Your task to perform on an android device: Add "alienware area 51" to the cart on target.com, then select checkout. Image 0: 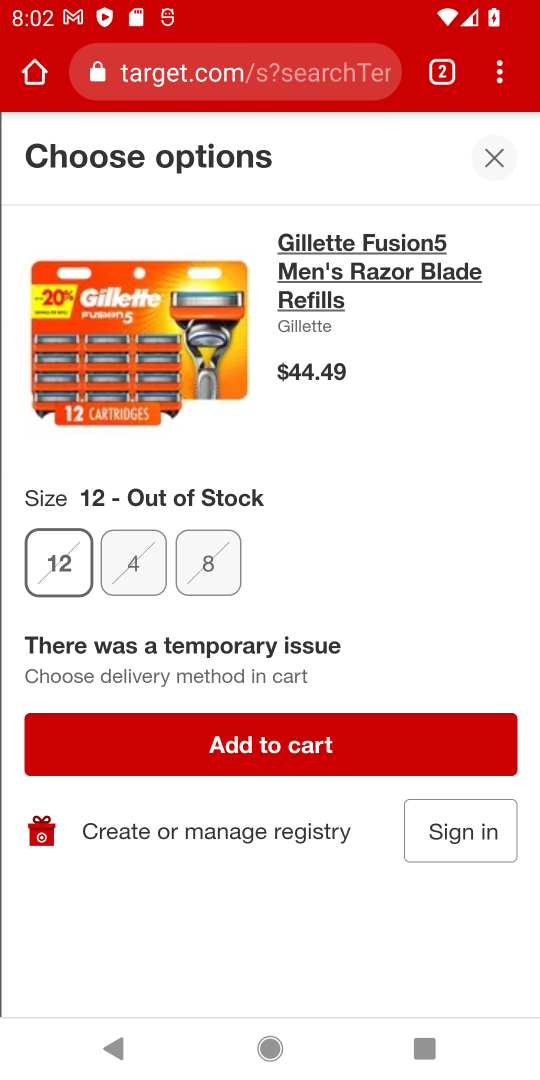
Step 0: press home button
Your task to perform on an android device: Add "alienware area 51" to the cart on target.com, then select checkout. Image 1: 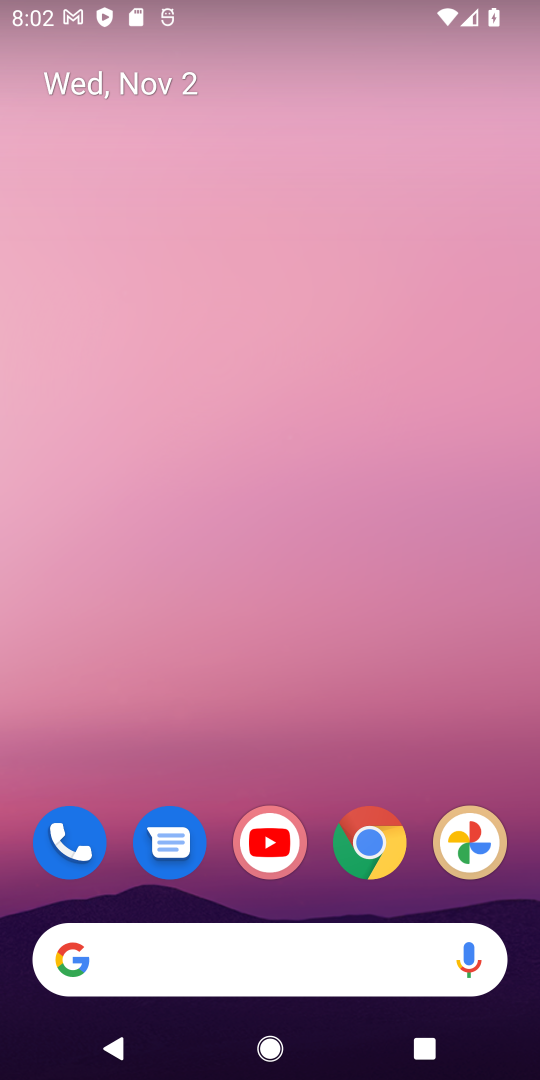
Step 1: drag from (349, 926) to (267, 236)
Your task to perform on an android device: Add "alienware area 51" to the cart on target.com, then select checkout. Image 2: 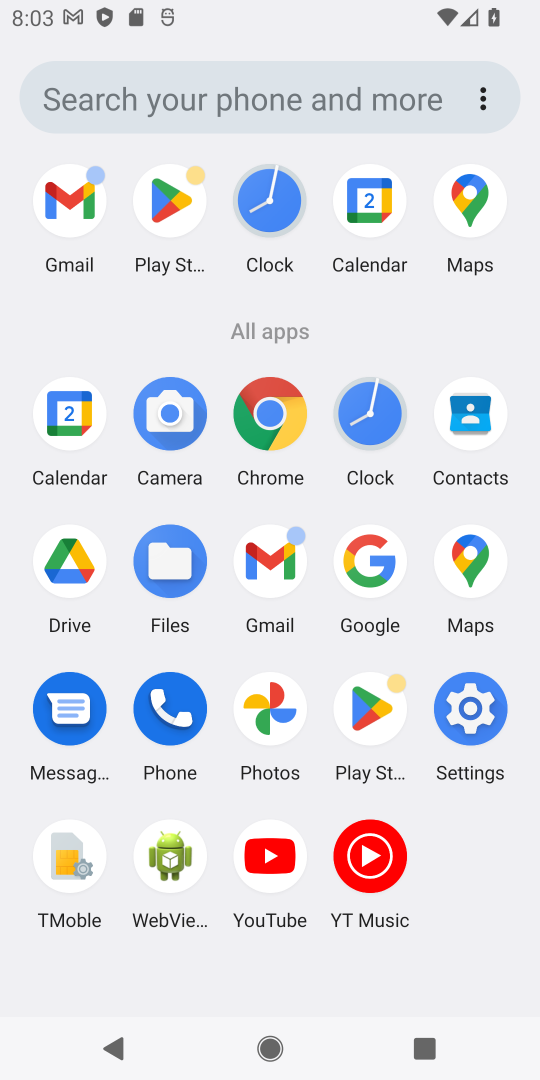
Step 2: click (350, 557)
Your task to perform on an android device: Add "alienware area 51" to the cart on target.com, then select checkout. Image 3: 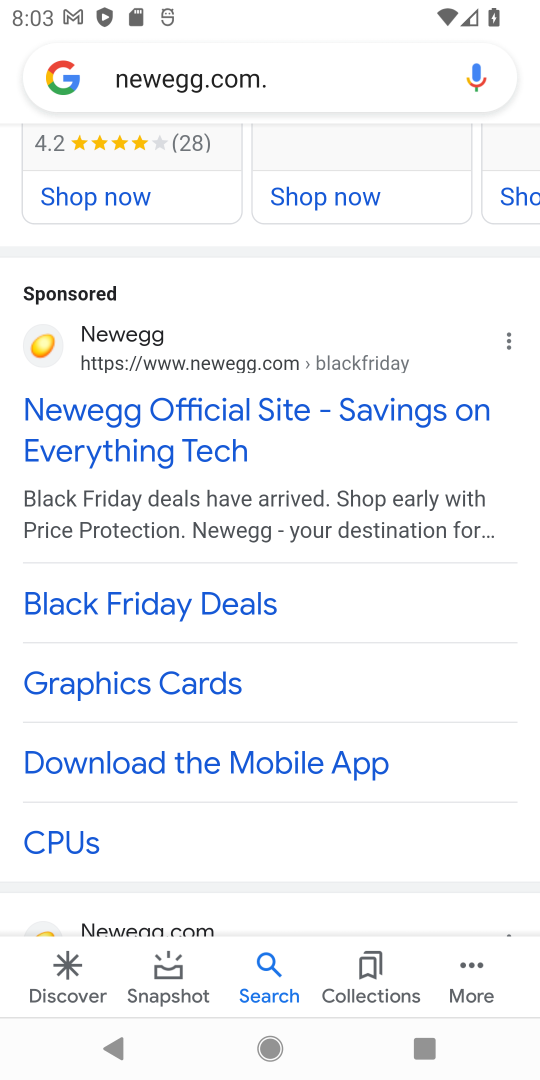
Step 3: click (181, 76)
Your task to perform on an android device: Add "alienware area 51" to the cart on target.com, then select checkout. Image 4: 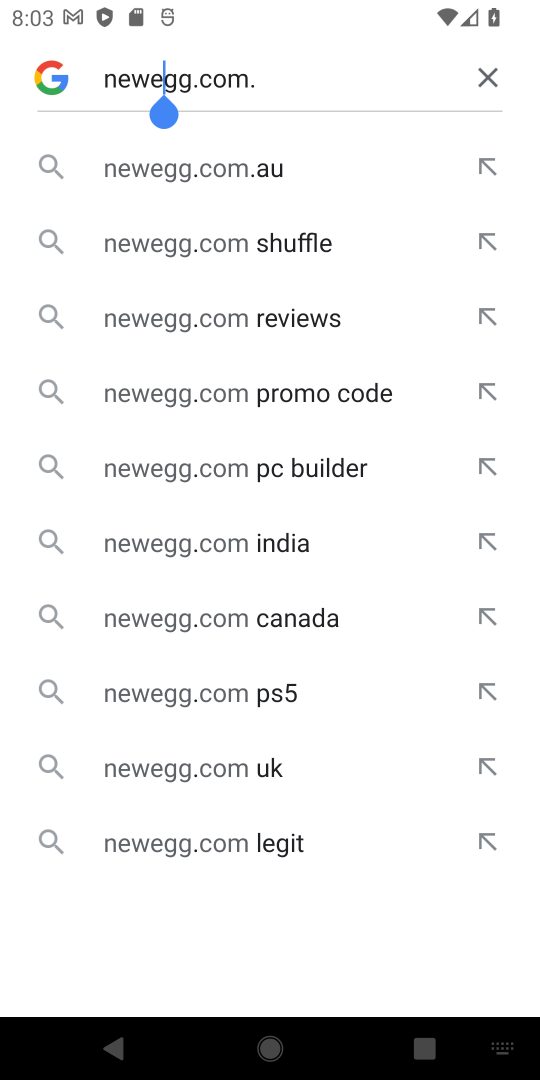
Step 4: click (469, 74)
Your task to perform on an android device: Add "alienware area 51" to the cart on target.com, then select checkout. Image 5: 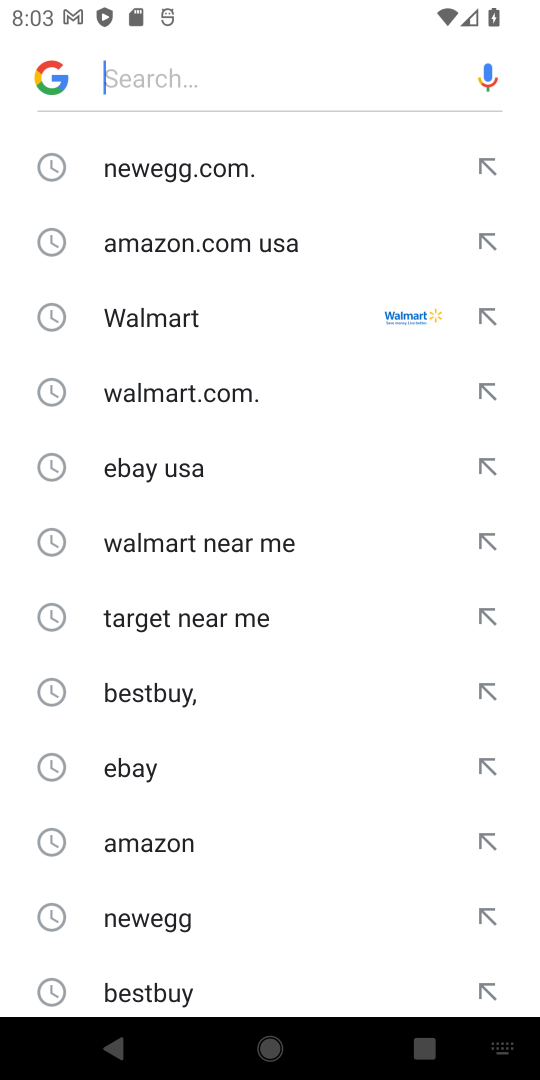
Step 5: click (182, 605)
Your task to perform on an android device: Add "alienware area 51" to the cart on target.com, then select checkout. Image 6: 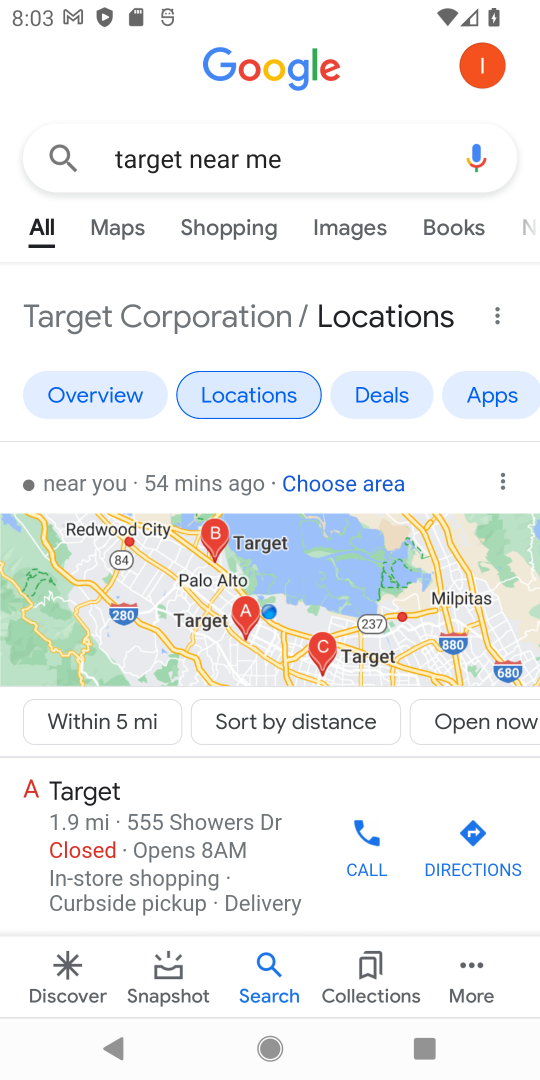
Step 6: drag from (227, 779) to (369, 221)
Your task to perform on an android device: Add "alienware area 51" to the cart on target.com, then select checkout. Image 7: 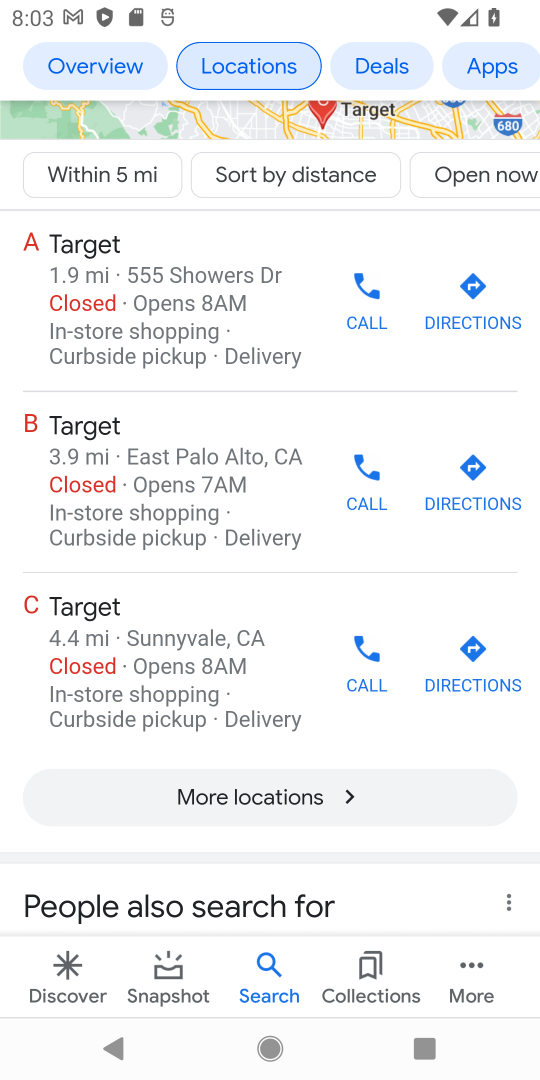
Step 7: drag from (173, 863) to (349, 74)
Your task to perform on an android device: Add "alienware area 51" to the cart on target.com, then select checkout. Image 8: 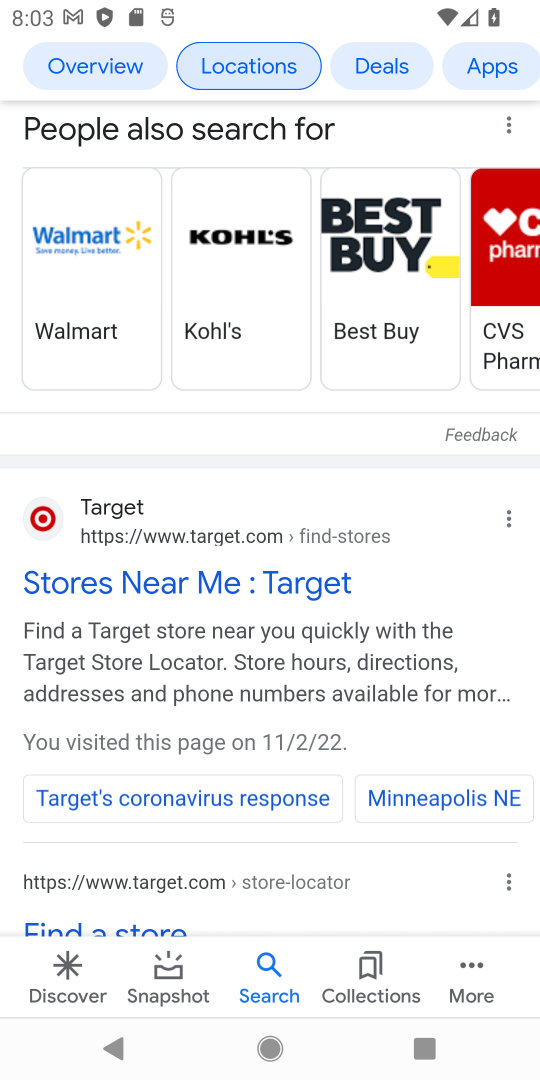
Step 8: click (41, 526)
Your task to perform on an android device: Add "alienware area 51" to the cart on target.com, then select checkout. Image 9: 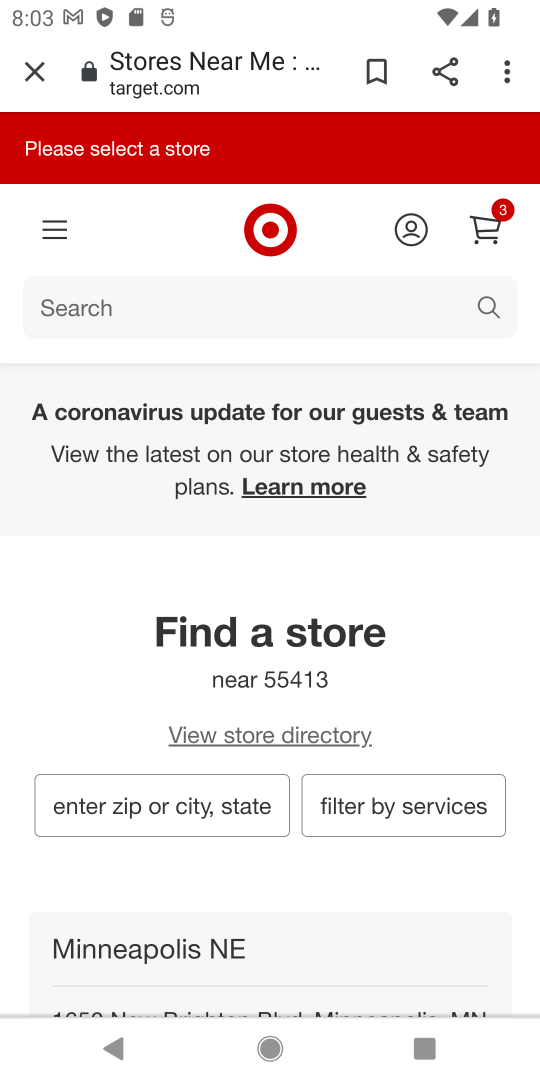
Step 9: click (165, 305)
Your task to perform on an android device: Add "alienware area 51" to the cart on target.com, then select checkout. Image 10: 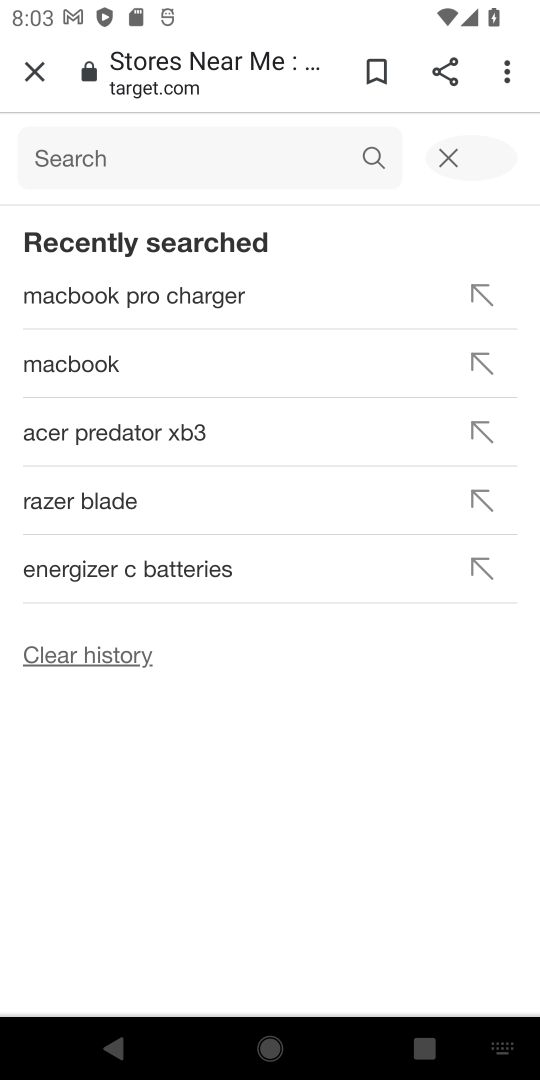
Step 10: click (199, 146)
Your task to perform on an android device: Add "alienware area 51" to the cart on target.com, then select checkout. Image 11: 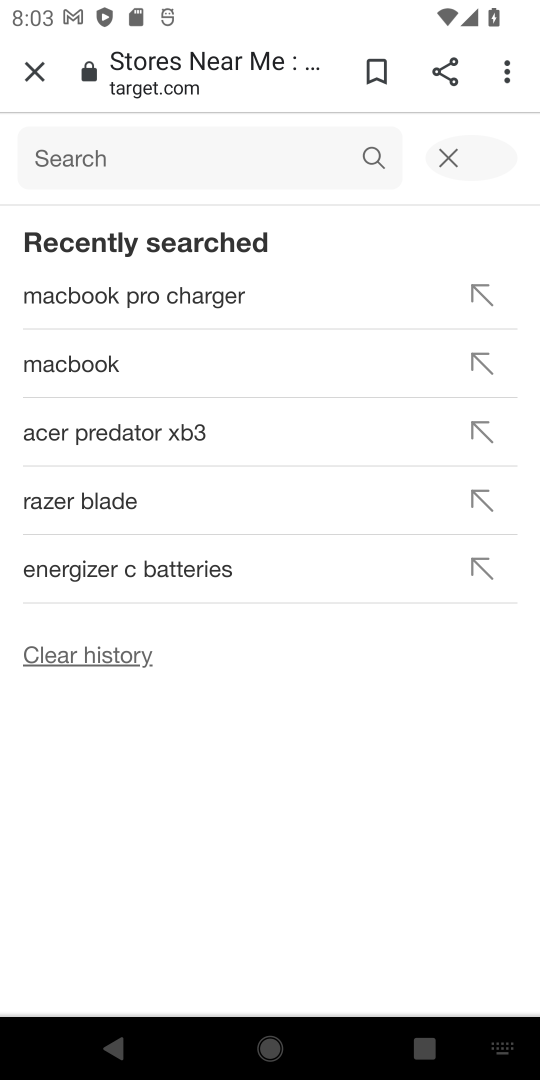
Step 11: type ""alienware area 51 "
Your task to perform on an android device: Add "alienware area 51" to the cart on target.com, then select checkout. Image 12: 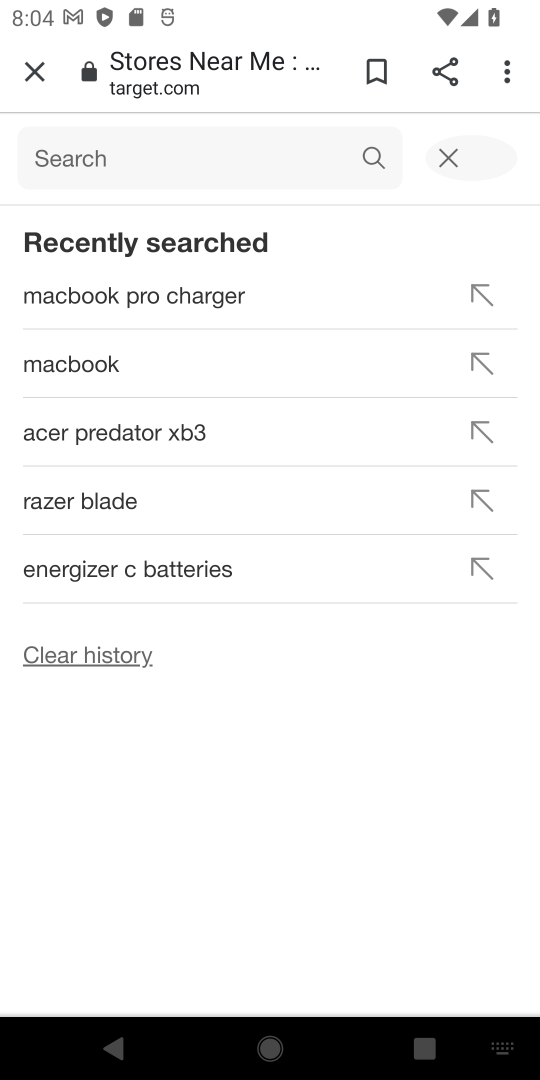
Step 12: click (167, 157)
Your task to perform on an android device: Add "alienware area 51" to the cart on target.com, then select checkout. Image 13: 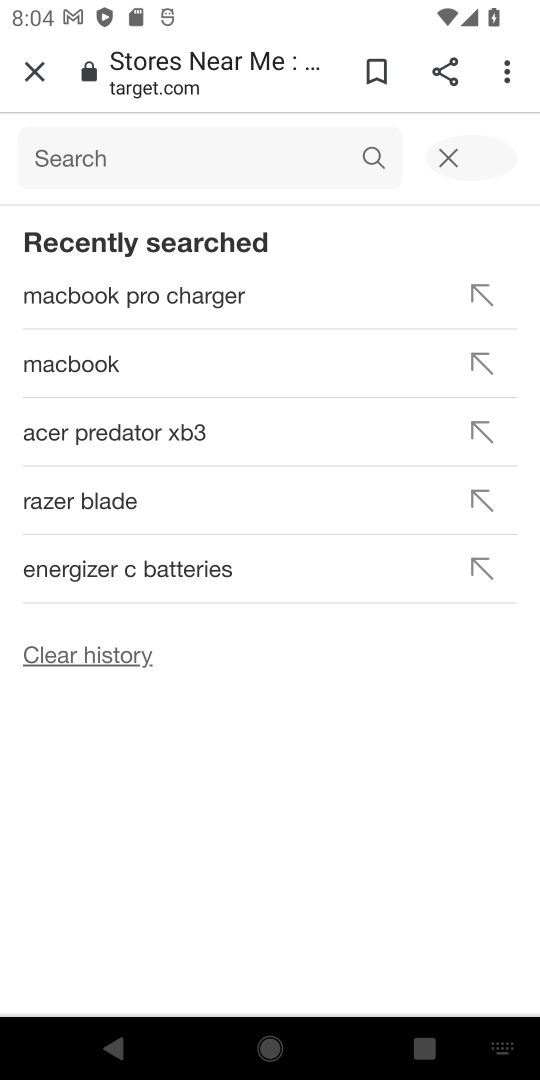
Step 13: type ""alienware area 51 "
Your task to perform on an android device: Add "alienware area 51" to the cart on target.com, then select checkout. Image 14: 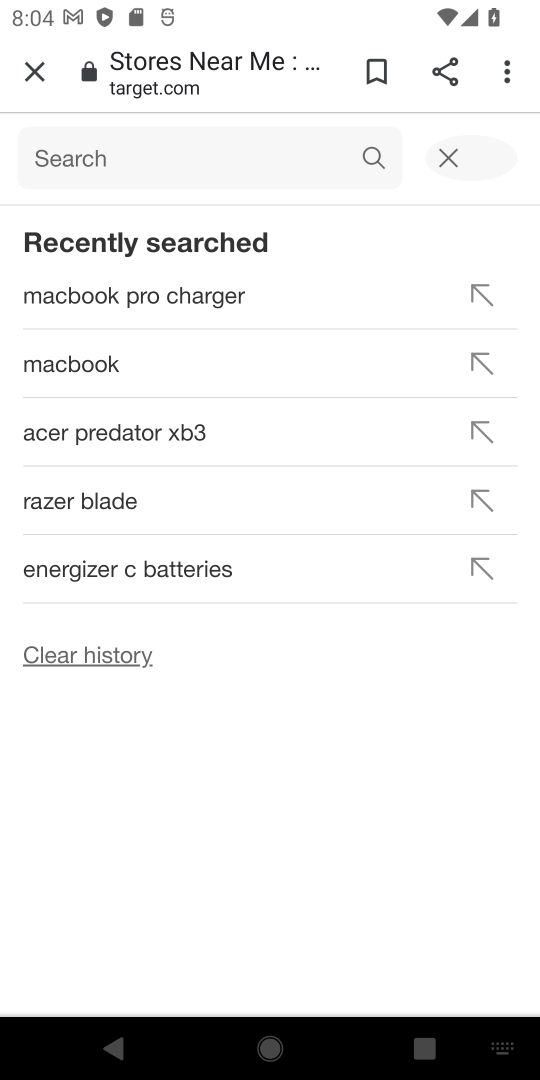
Step 14: click (248, 144)
Your task to perform on an android device: Add "alienware area 51" to the cart on target.com, then select checkout. Image 15: 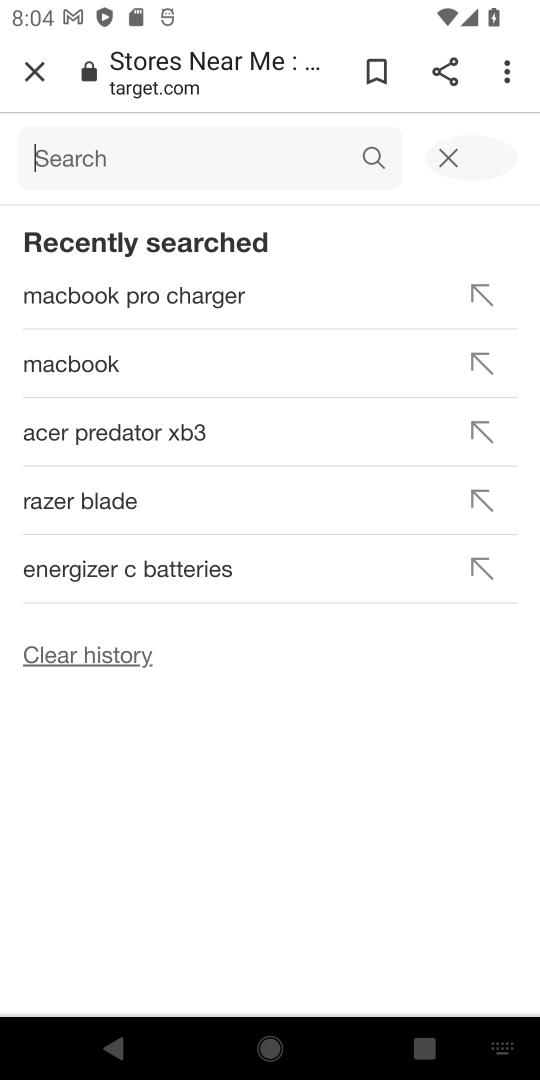
Step 15: type "alienware "
Your task to perform on an android device: Add "alienware area 51" to the cart on target.com, then select checkout. Image 16: 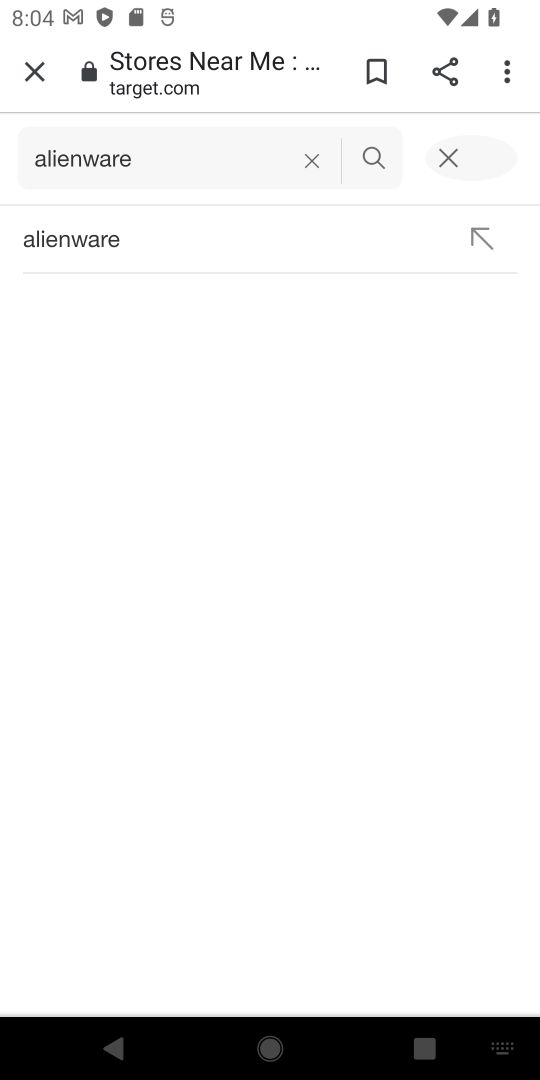
Step 16: click (58, 228)
Your task to perform on an android device: Add "alienware area 51" to the cart on target.com, then select checkout. Image 17: 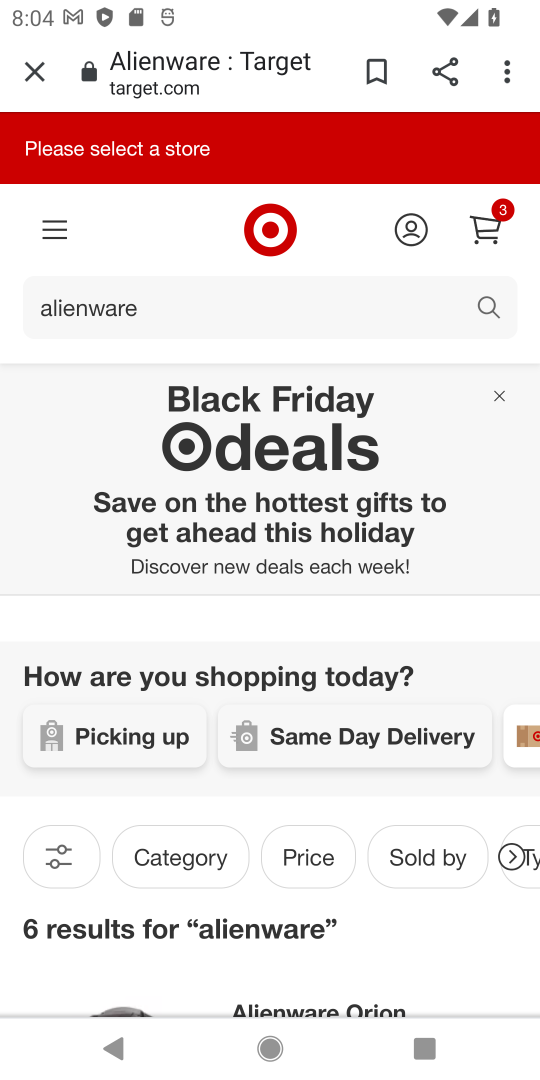
Step 17: drag from (328, 850) to (350, 288)
Your task to perform on an android device: Add "alienware area 51" to the cart on target.com, then select checkout. Image 18: 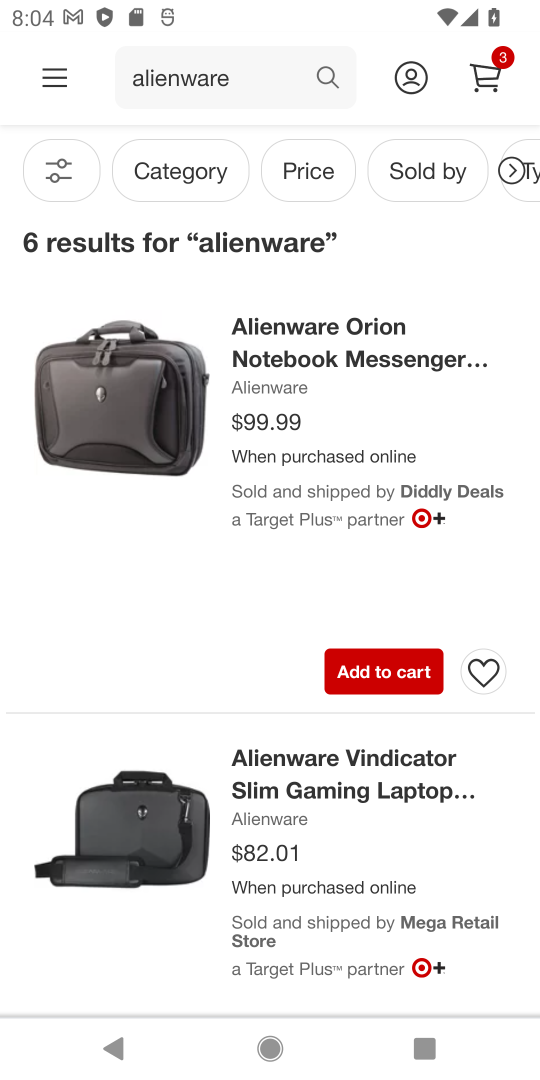
Step 18: drag from (260, 816) to (229, 582)
Your task to perform on an android device: Add "alienware area 51" to the cart on target.com, then select checkout. Image 19: 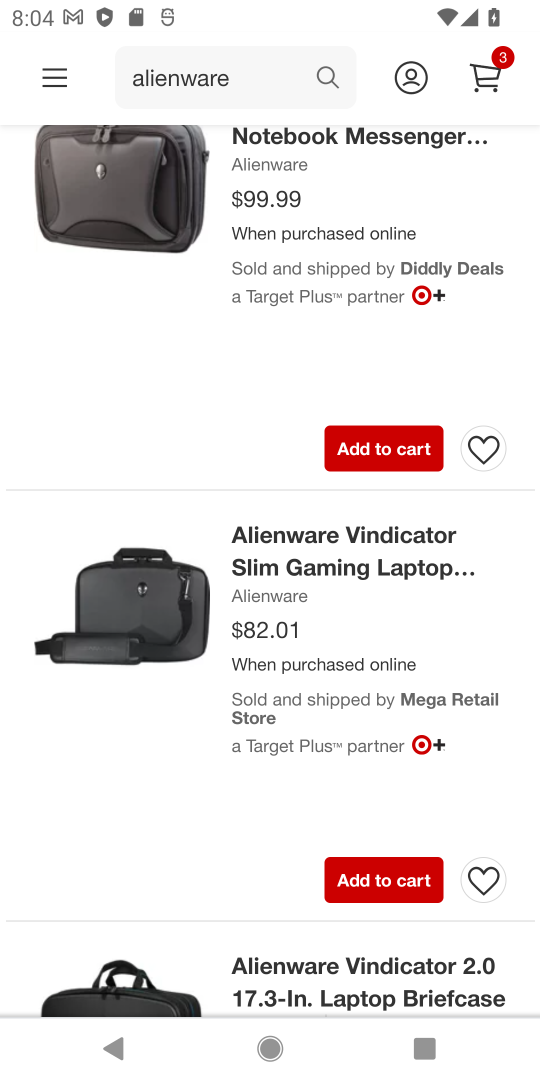
Step 19: drag from (300, 833) to (315, 472)
Your task to perform on an android device: Add "alienware area 51" to the cart on target.com, then select checkout. Image 20: 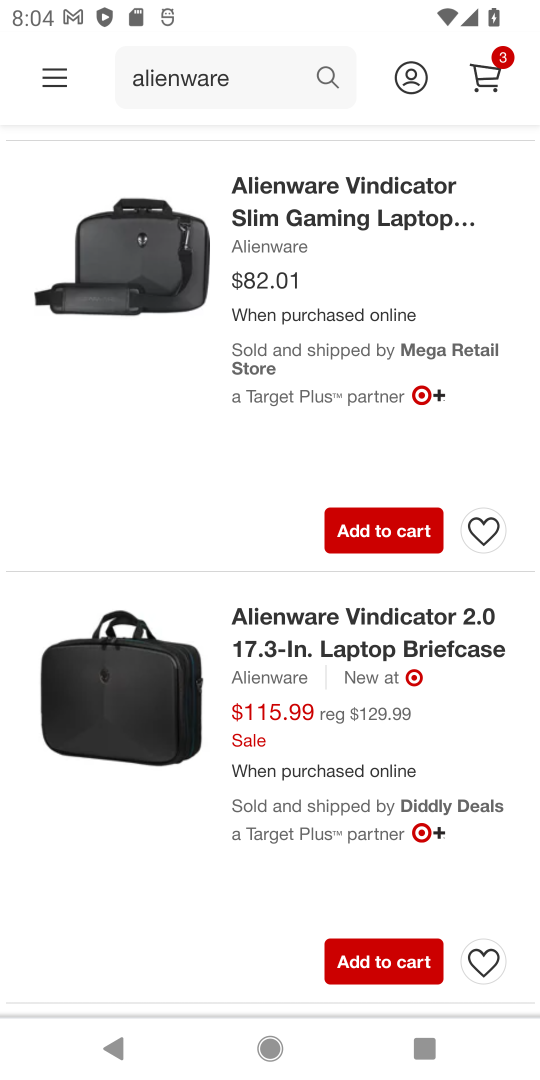
Step 20: drag from (247, 730) to (243, 202)
Your task to perform on an android device: Add "alienware area 51" to the cart on target.com, then select checkout. Image 21: 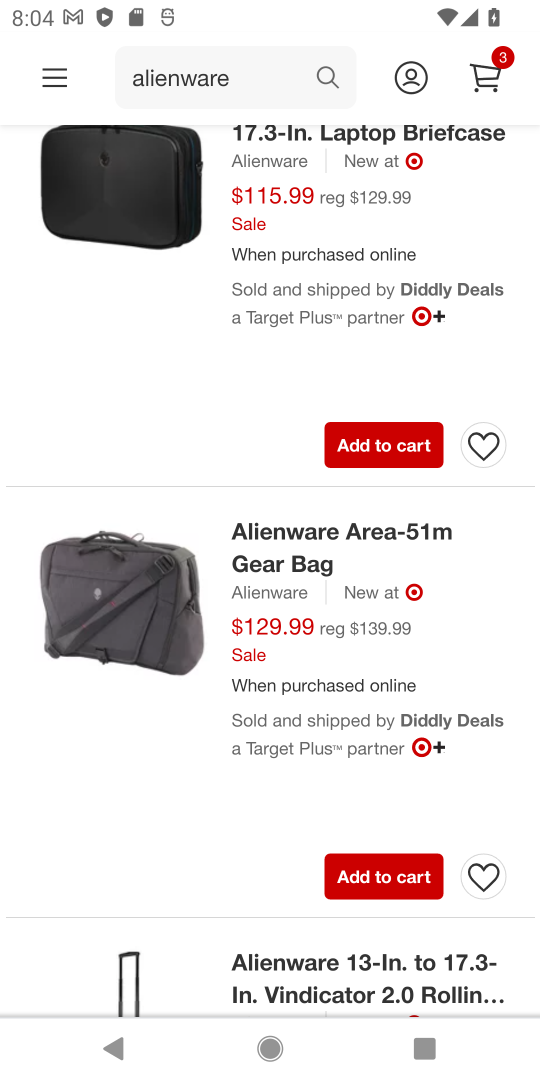
Step 21: click (292, 544)
Your task to perform on an android device: Add "alienware area 51" to the cart on target.com, then select checkout. Image 22: 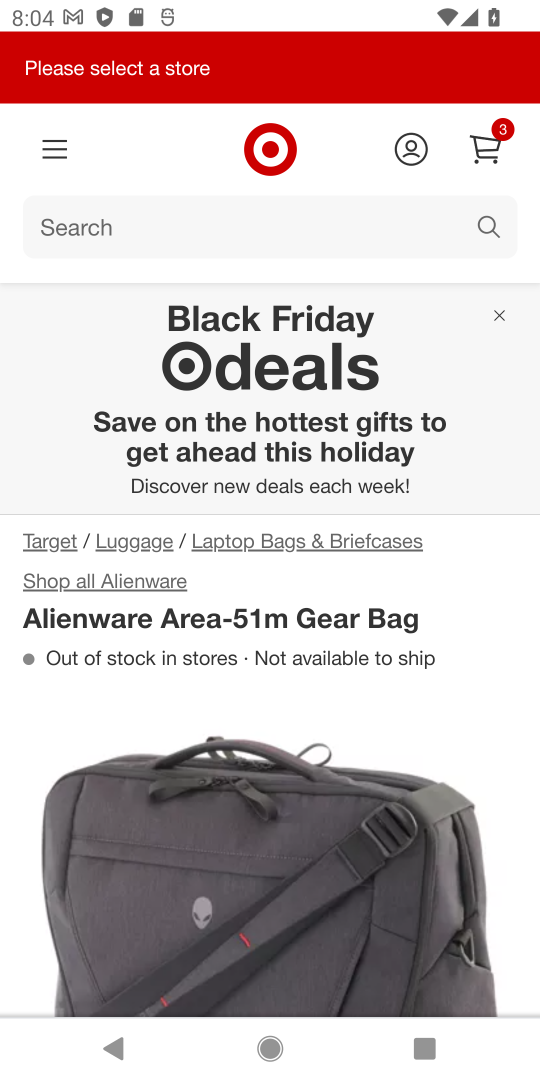
Step 22: drag from (353, 884) to (315, 214)
Your task to perform on an android device: Add "alienware area 51" to the cart on target.com, then select checkout. Image 23: 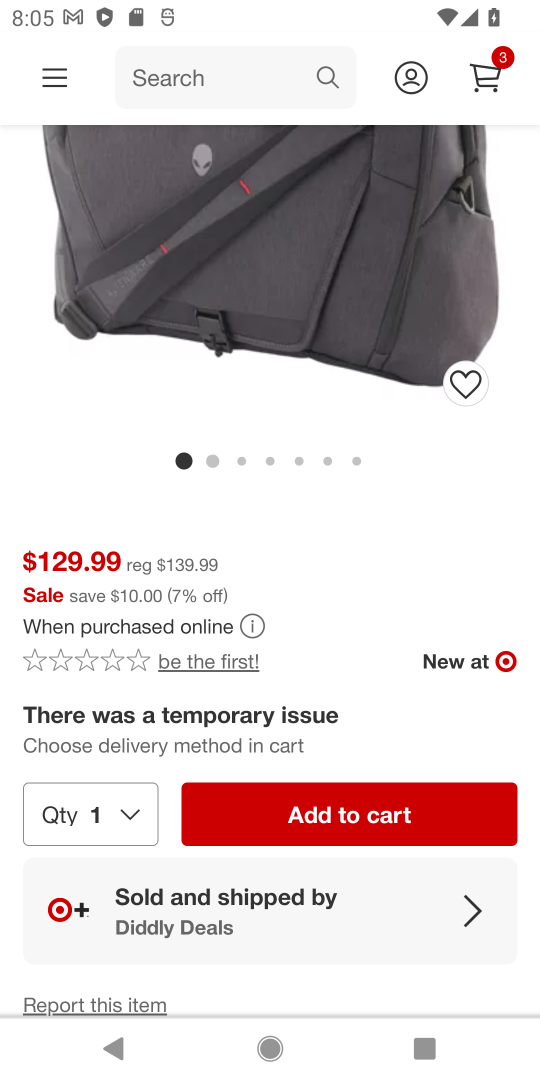
Step 23: click (298, 818)
Your task to perform on an android device: Add "alienware area 51" to the cart on target.com, then select checkout. Image 24: 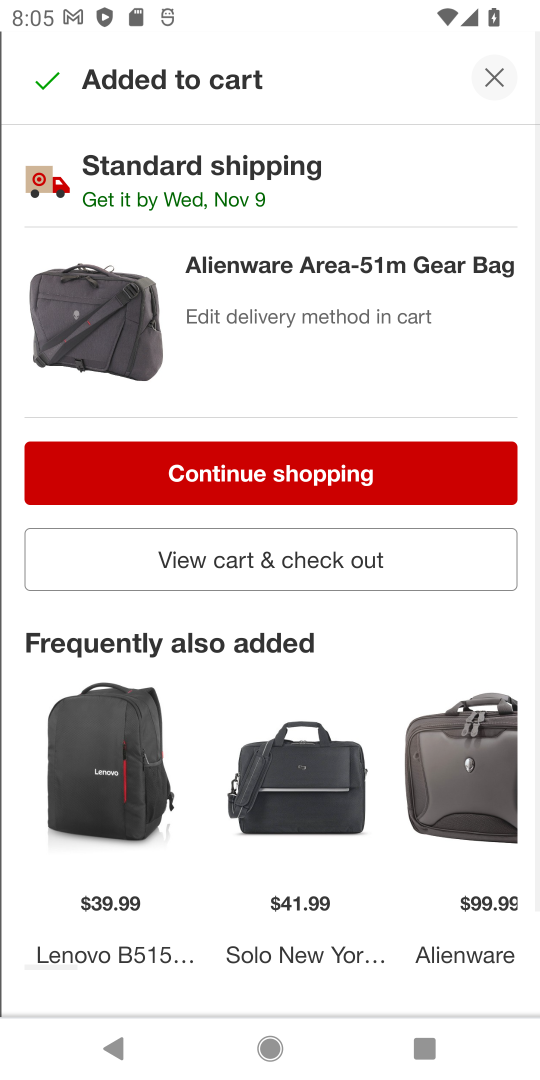
Step 24: task complete